Your task to perform on an android device: Open Chrome and go to the settings page Image 0: 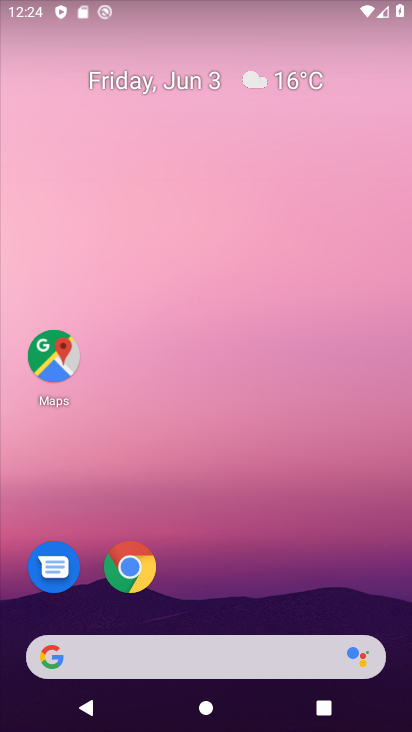
Step 0: click (132, 564)
Your task to perform on an android device: Open Chrome and go to the settings page Image 1: 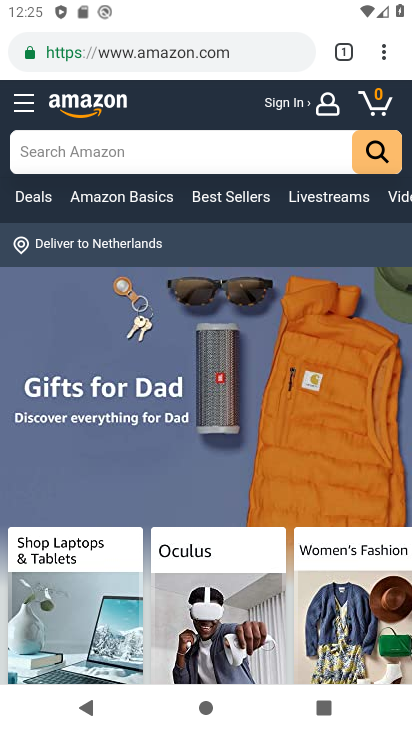
Step 1: click (377, 56)
Your task to perform on an android device: Open Chrome and go to the settings page Image 2: 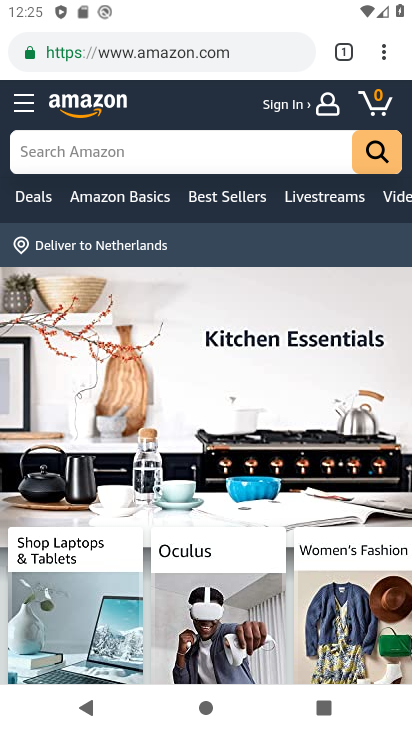
Step 2: click (385, 56)
Your task to perform on an android device: Open Chrome and go to the settings page Image 3: 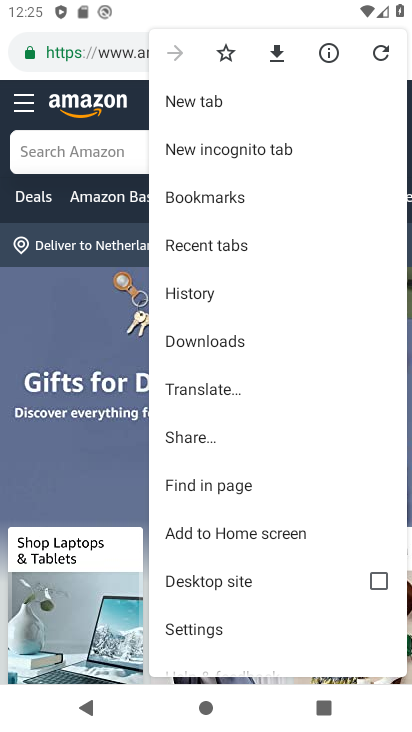
Step 3: click (205, 634)
Your task to perform on an android device: Open Chrome and go to the settings page Image 4: 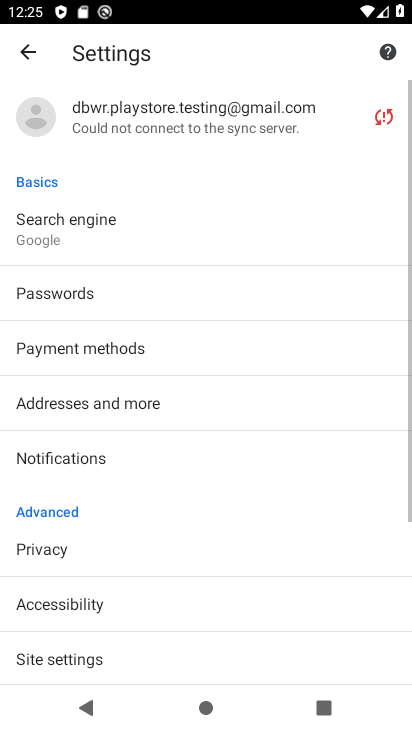
Step 4: task complete